Your task to perform on an android device: Turn on the flashlight Image 0: 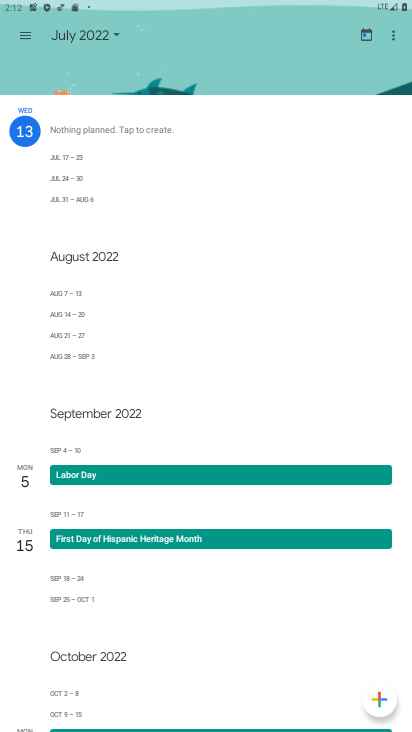
Step 0: press home button
Your task to perform on an android device: Turn on the flashlight Image 1: 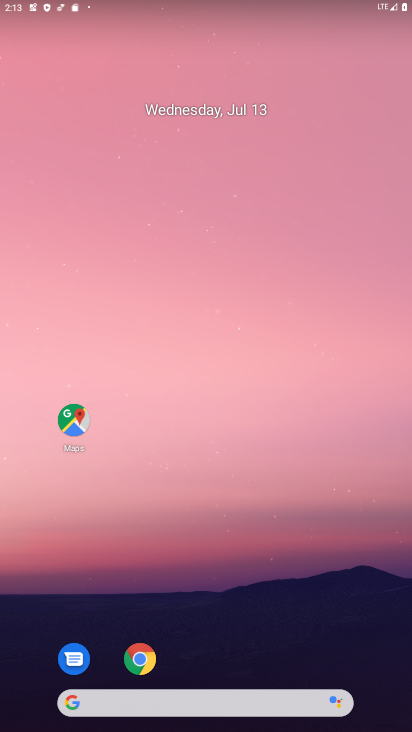
Step 1: drag from (234, 20) to (206, 529)
Your task to perform on an android device: Turn on the flashlight Image 2: 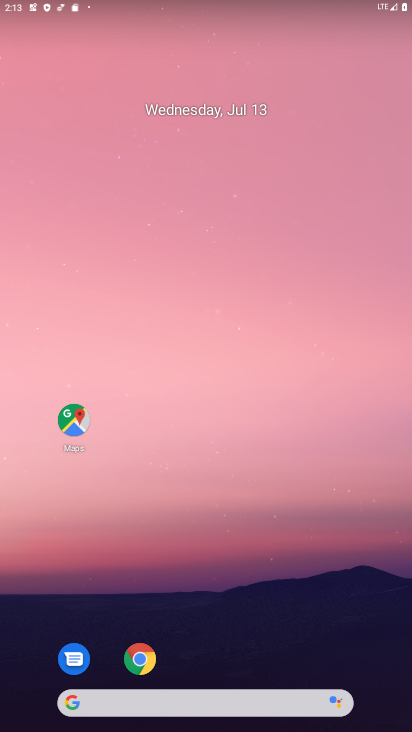
Step 2: drag from (234, 13) to (193, 600)
Your task to perform on an android device: Turn on the flashlight Image 3: 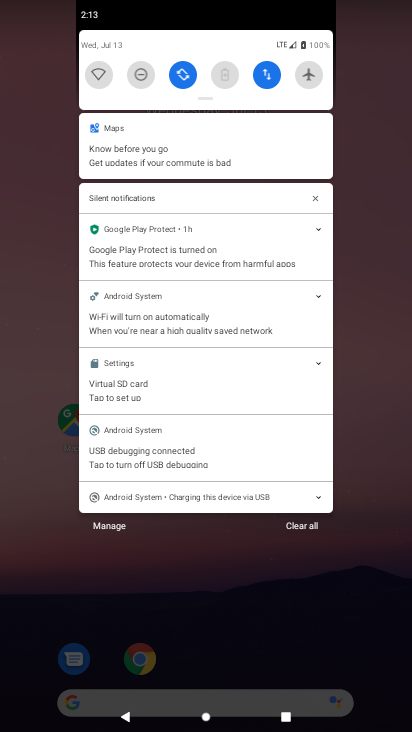
Step 3: drag from (207, 101) to (190, 374)
Your task to perform on an android device: Turn on the flashlight Image 4: 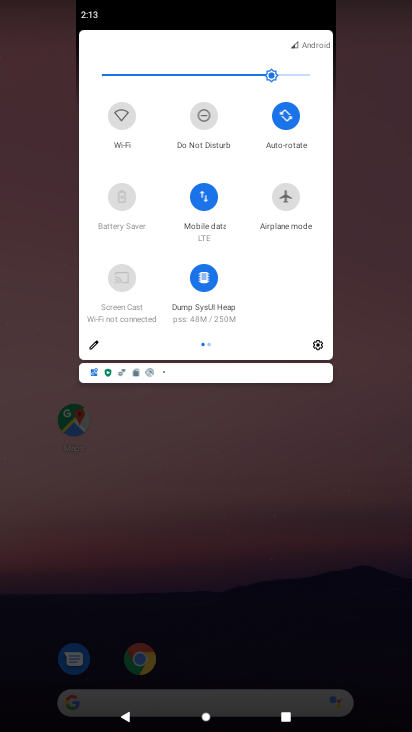
Step 4: click (91, 345)
Your task to perform on an android device: Turn on the flashlight Image 5: 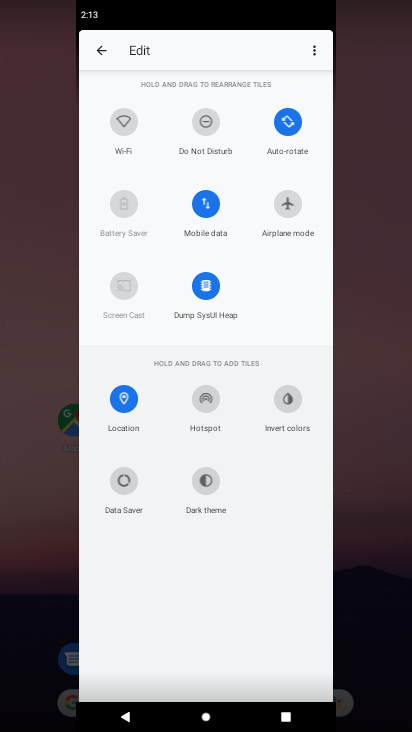
Step 5: task complete